Your task to perform on an android device: Go to internet settings Image 0: 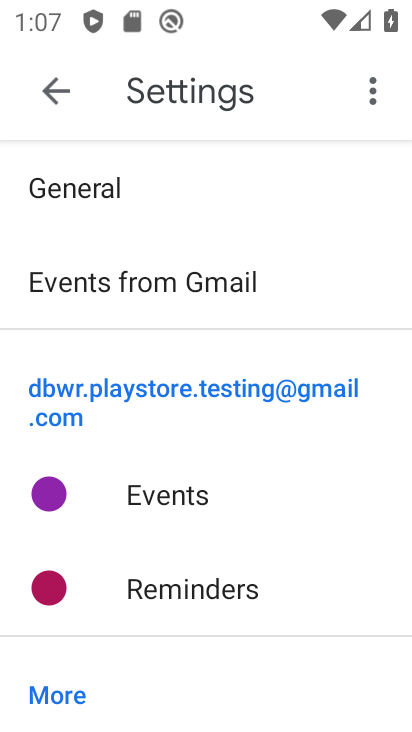
Step 0: press home button
Your task to perform on an android device: Go to internet settings Image 1: 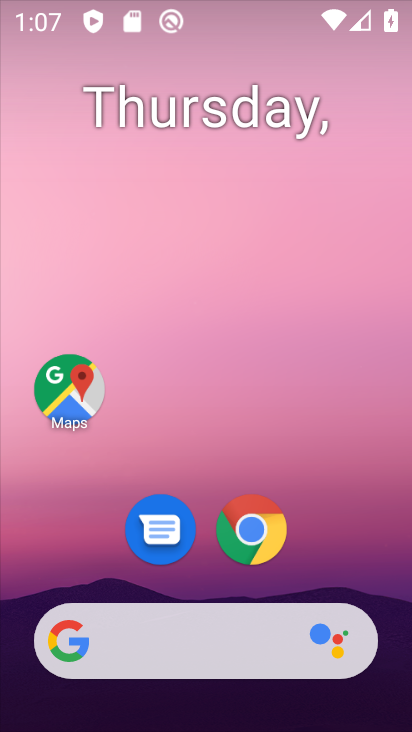
Step 1: drag from (355, 564) to (349, 207)
Your task to perform on an android device: Go to internet settings Image 2: 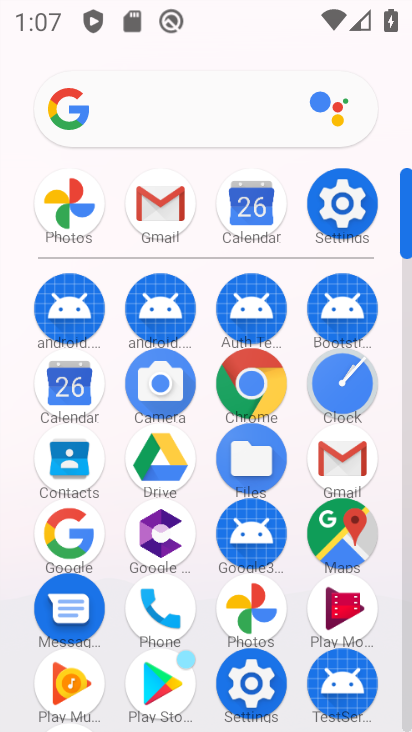
Step 2: click (334, 213)
Your task to perform on an android device: Go to internet settings Image 3: 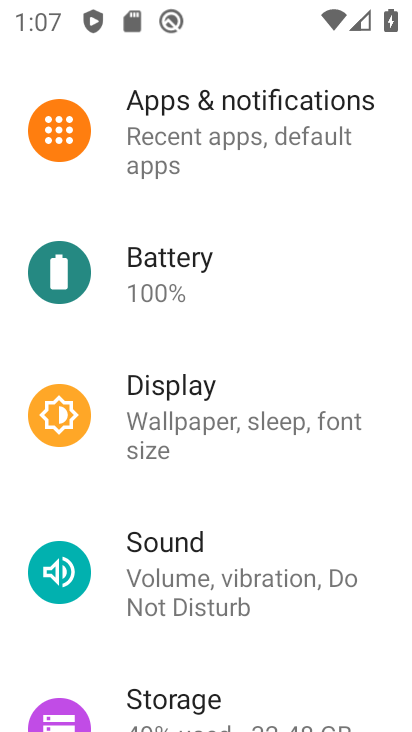
Step 3: task complete